Your task to perform on an android device: open a bookmark in the chrome app Image 0: 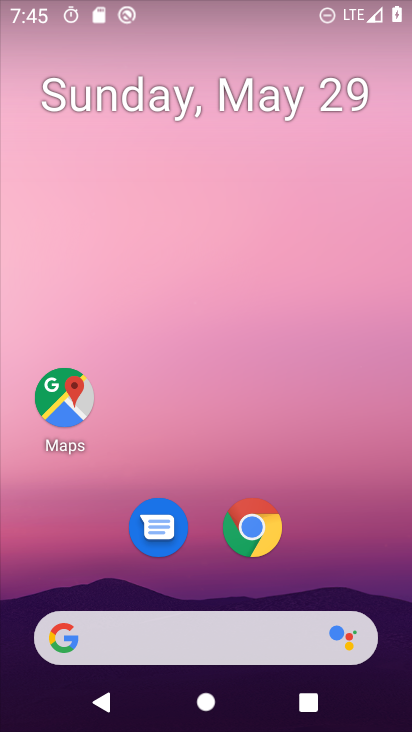
Step 0: drag from (387, 641) to (302, 42)
Your task to perform on an android device: open a bookmark in the chrome app Image 1: 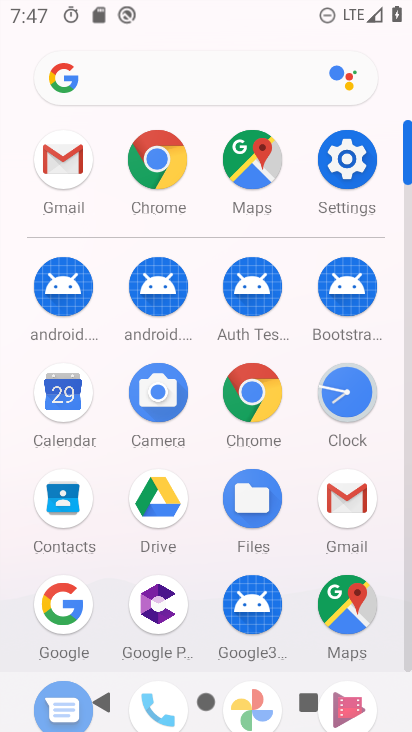
Step 1: click (175, 162)
Your task to perform on an android device: open a bookmark in the chrome app Image 2: 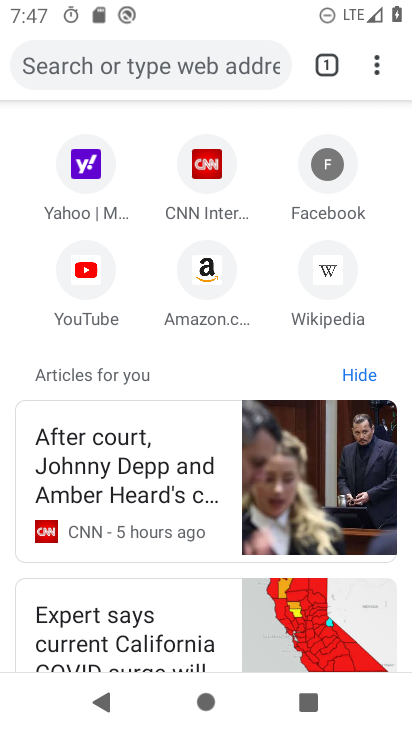
Step 2: click (379, 62)
Your task to perform on an android device: open a bookmark in the chrome app Image 3: 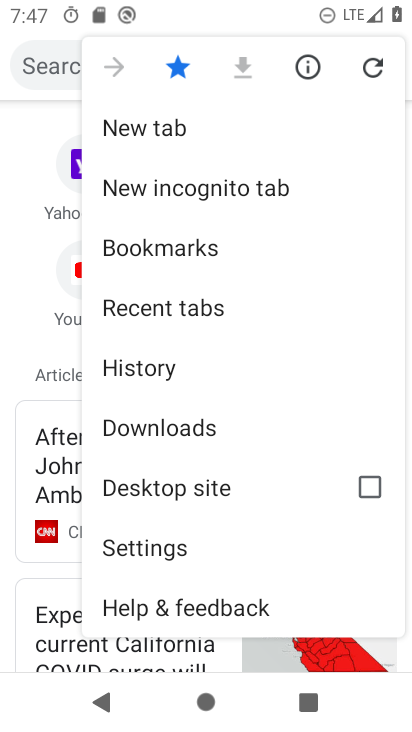
Step 3: click (232, 247)
Your task to perform on an android device: open a bookmark in the chrome app Image 4: 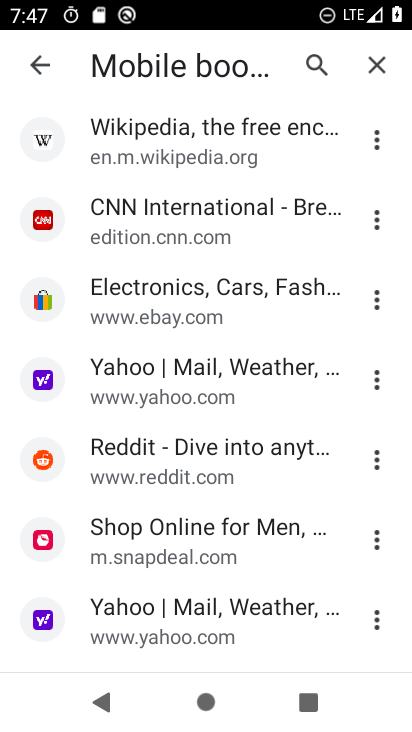
Step 4: task complete